Your task to perform on an android device: When is my next meeting? Image 0: 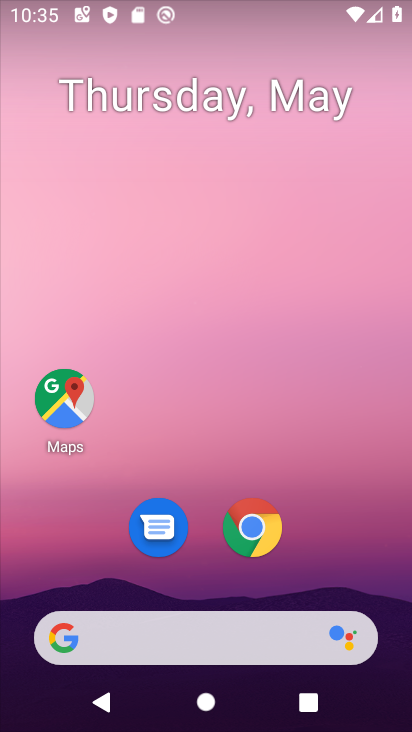
Step 0: drag from (333, 529) to (343, 89)
Your task to perform on an android device: When is my next meeting? Image 1: 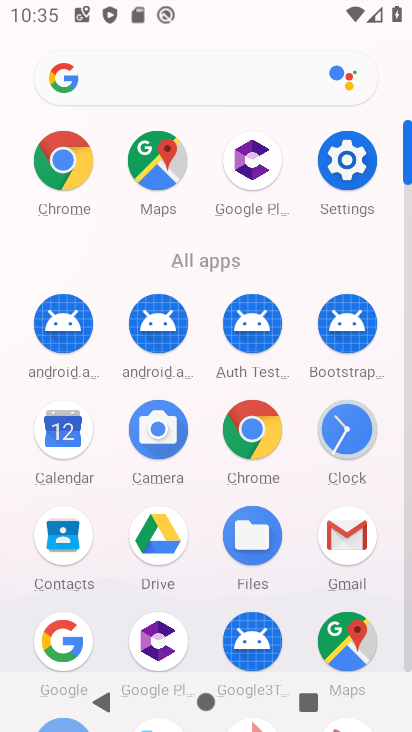
Step 1: click (61, 417)
Your task to perform on an android device: When is my next meeting? Image 2: 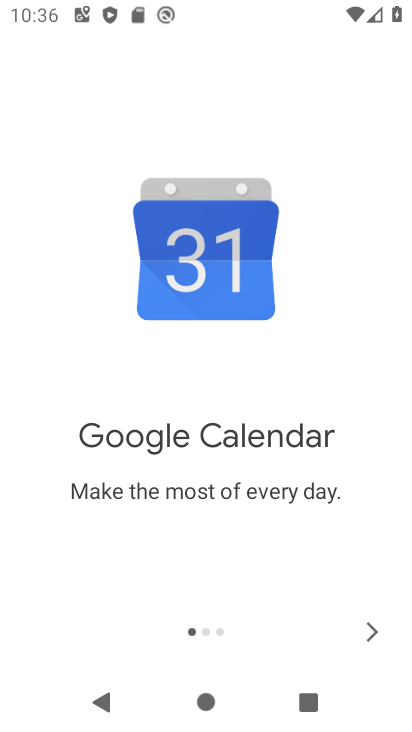
Step 2: click (377, 618)
Your task to perform on an android device: When is my next meeting? Image 3: 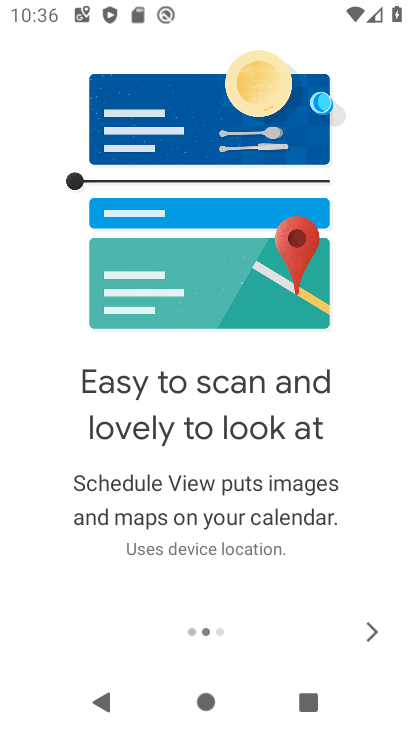
Step 3: click (376, 617)
Your task to perform on an android device: When is my next meeting? Image 4: 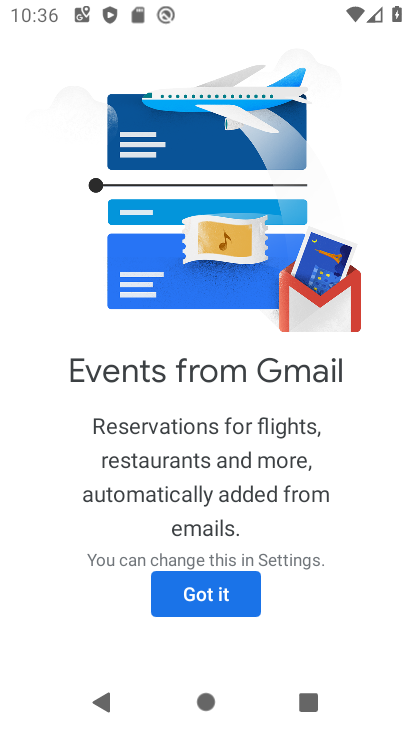
Step 4: click (192, 598)
Your task to perform on an android device: When is my next meeting? Image 5: 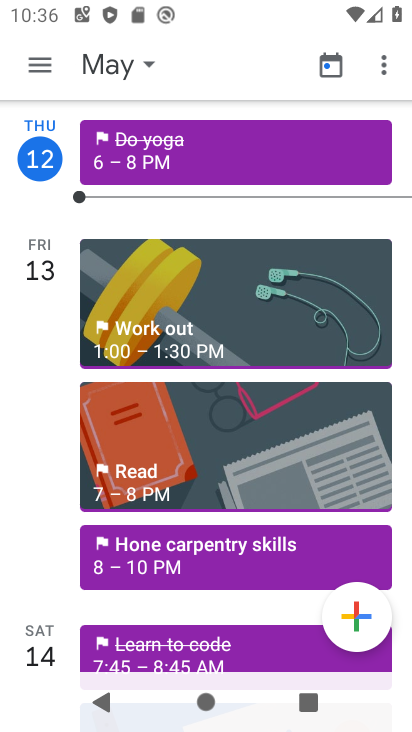
Step 5: task complete